Your task to perform on an android device: Show me popular games on the Play Store Image 0: 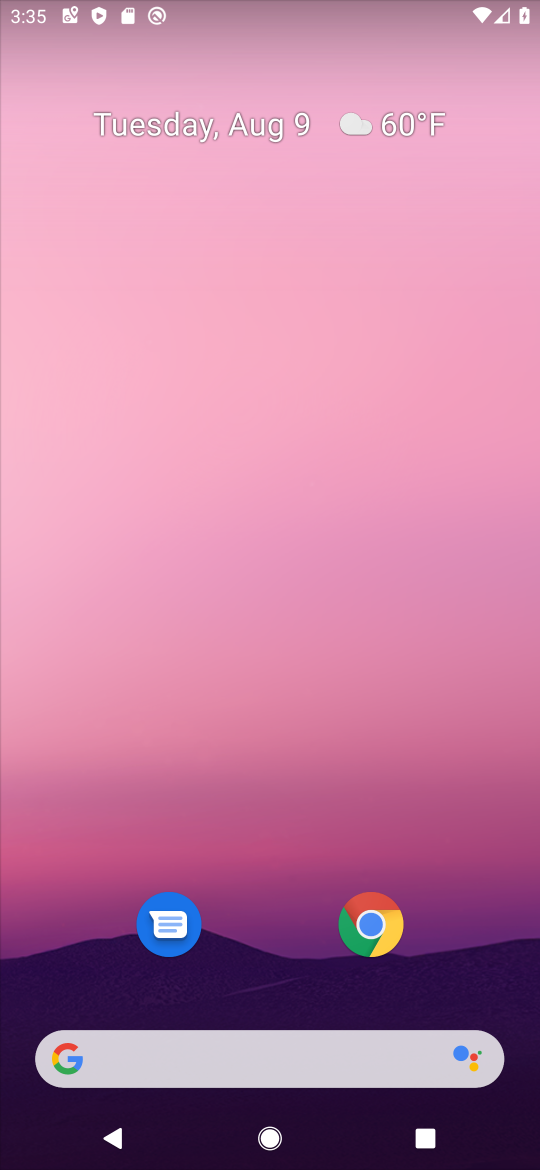
Step 0: drag from (259, 884) to (263, 0)
Your task to perform on an android device: Show me popular games on the Play Store Image 1: 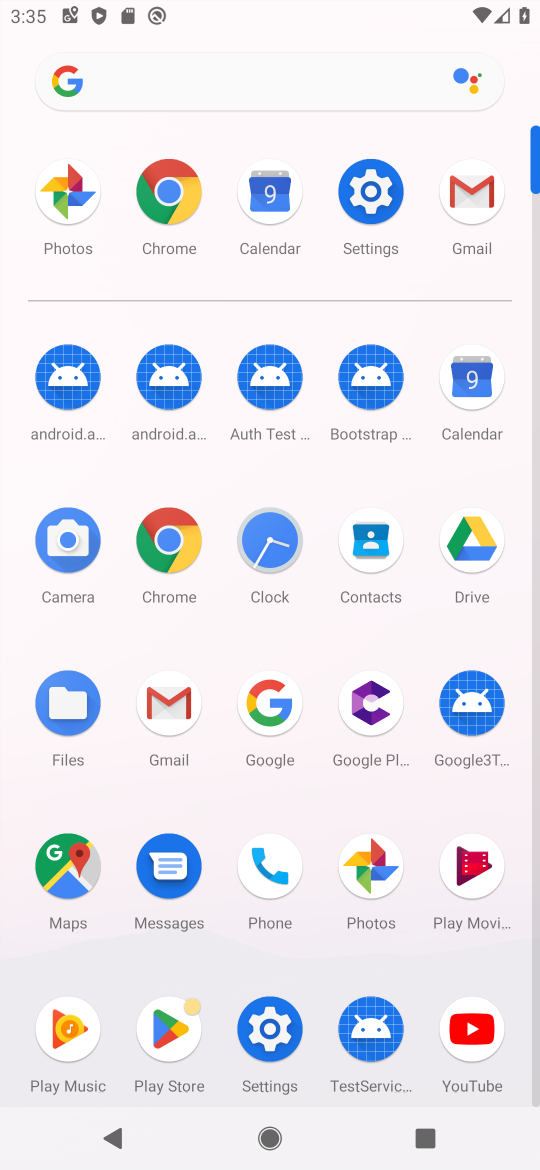
Step 1: click (162, 1028)
Your task to perform on an android device: Show me popular games on the Play Store Image 2: 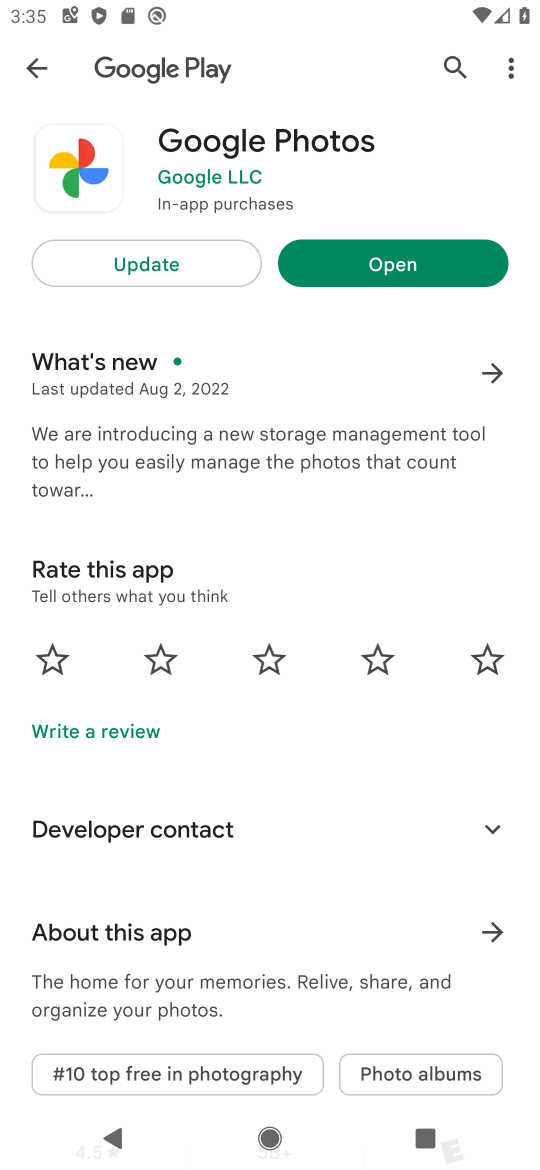
Step 2: click (41, 66)
Your task to perform on an android device: Show me popular games on the Play Store Image 3: 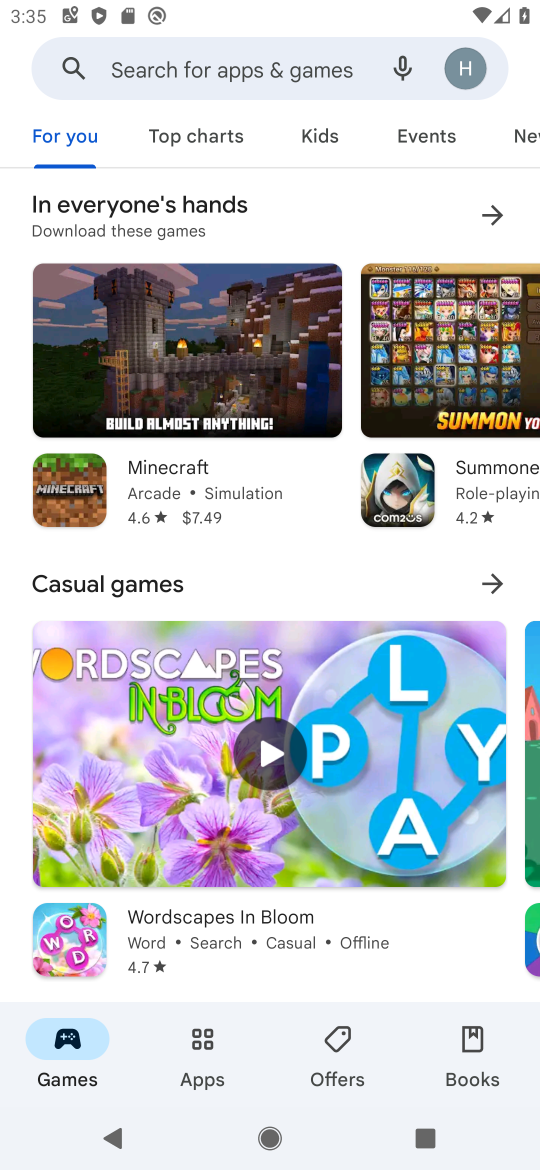
Step 3: drag from (337, 843) to (353, 153)
Your task to perform on an android device: Show me popular games on the Play Store Image 4: 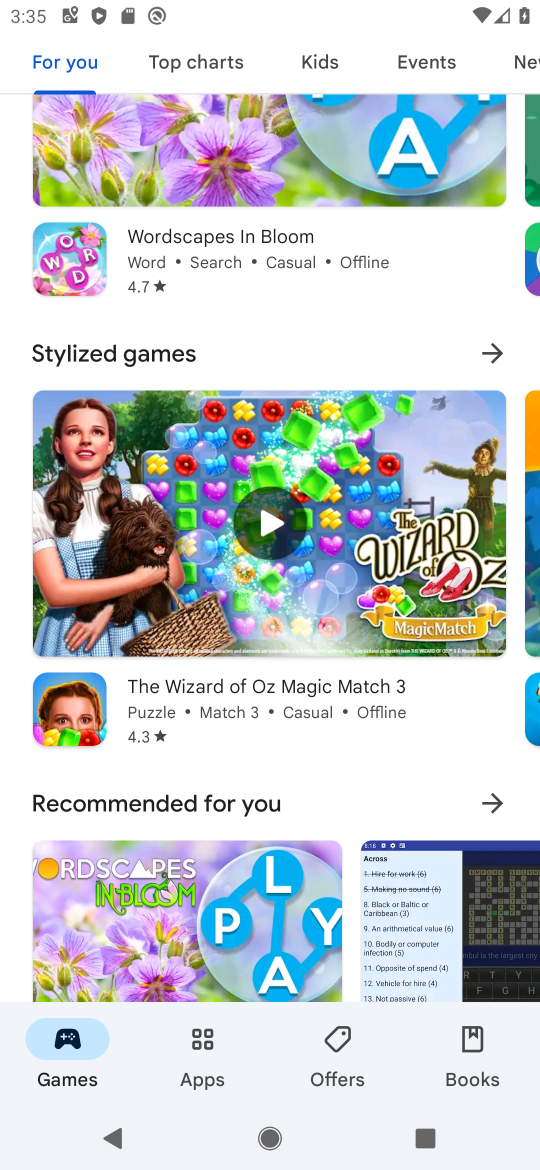
Step 4: drag from (336, 752) to (359, 150)
Your task to perform on an android device: Show me popular games on the Play Store Image 5: 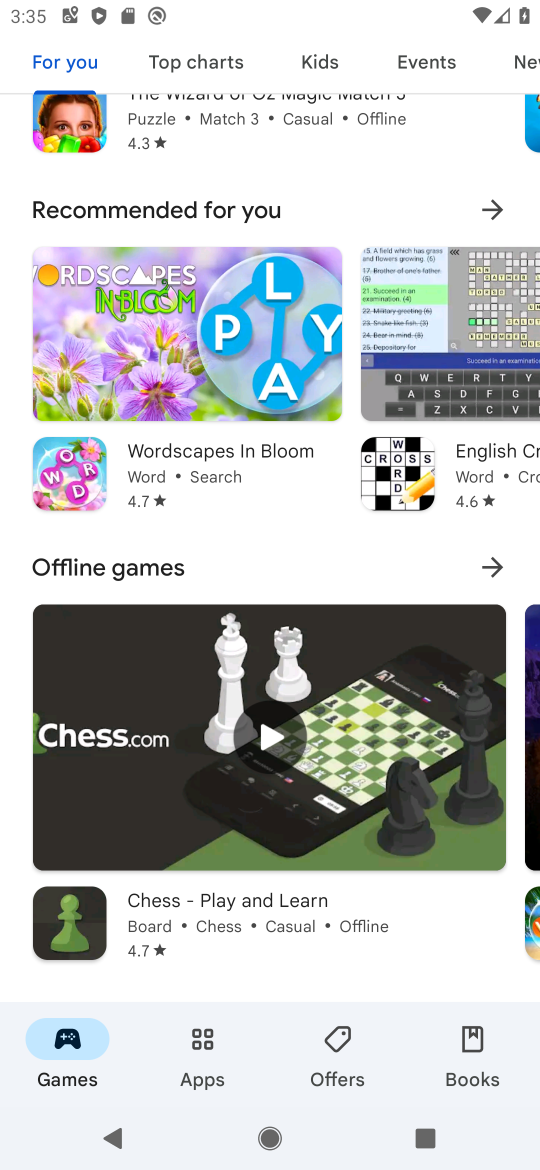
Step 5: drag from (325, 657) to (350, 63)
Your task to perform on an android device: Show me popular games on the Play Store Image 6: 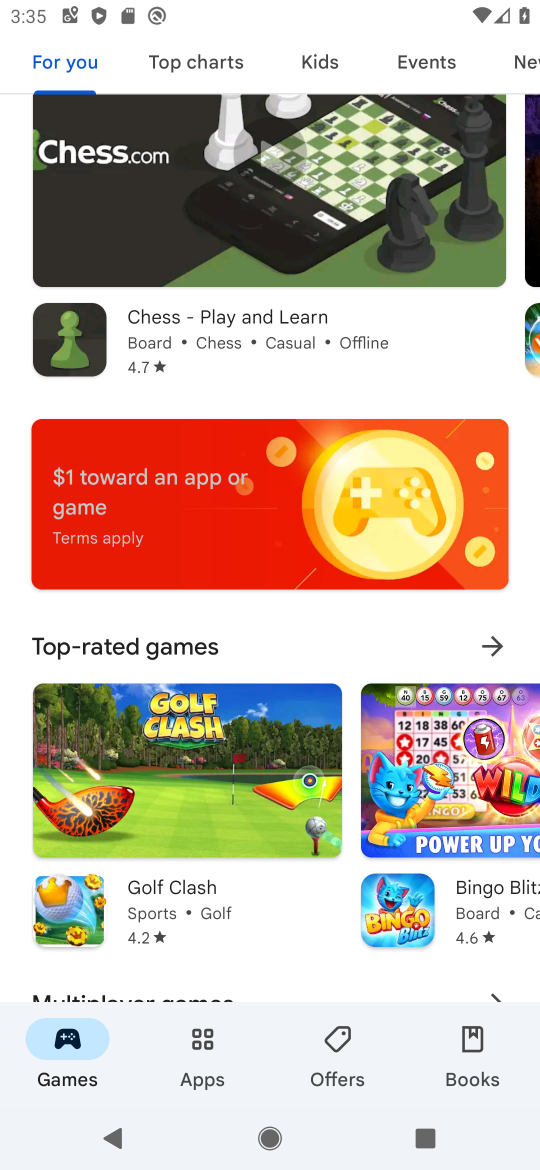
Step 6: click (485, 635)
Your task to perform on an android device: Show me popular games on the Play Store Image 7: 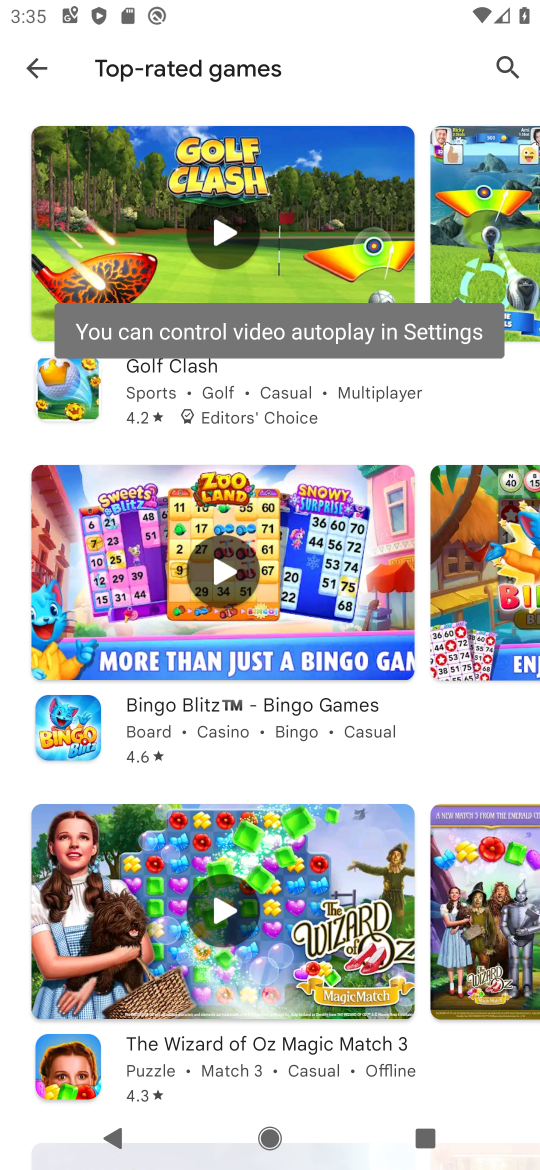
Step 7: task complete